Your task to perform on an android device: read, delete, or share a saved page in the chrome app Image 0: 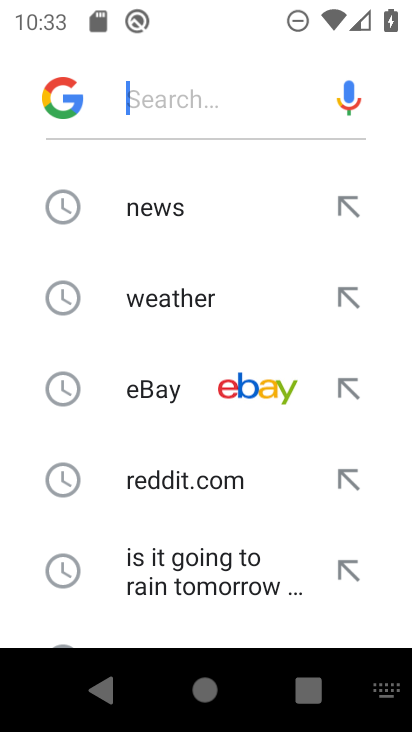
Step 0: press home button
Your task to perform on an android device: read, delete, or share a saved page in the chrome app Image 1: 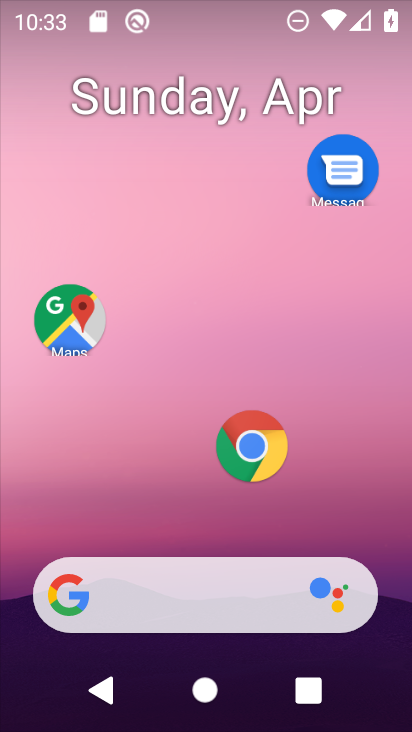
Step 1: drag from (168, 531) to (193, 125)
Your task to perform on an android device: read, delete, or share a saved page in the chrome app Image 2: 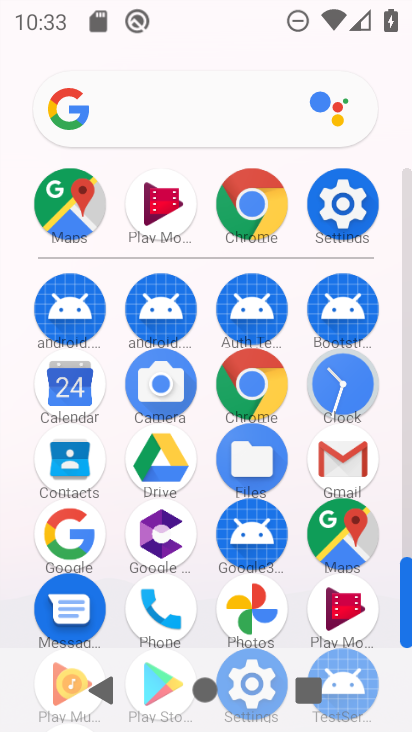
Step 2: click (246, 378)
Your task to perform on an android device: read, delete, or share a saved page in the chrome app Image 3: 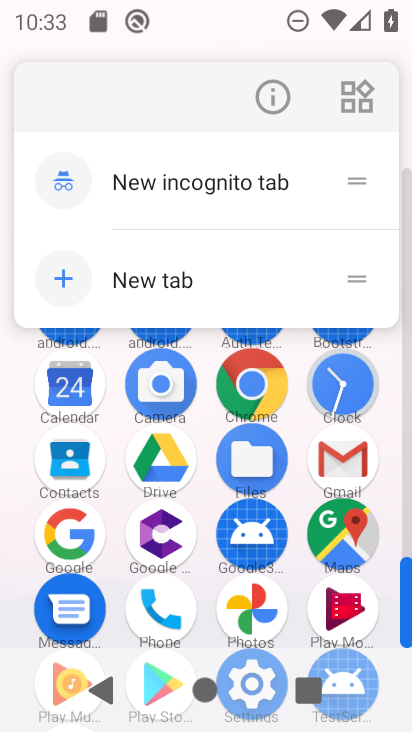
Step 3: click (254, 92)
Your task to perform on an android device: read, delete, or share a saved page in the chrome app Image 4: 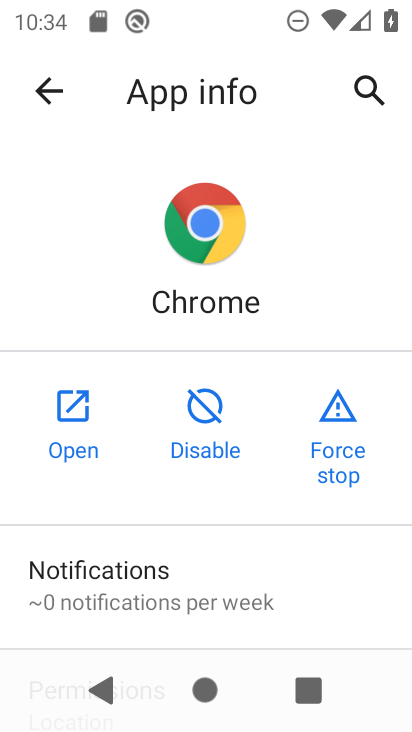
Step 4: click (82, 414)
Your task to perform on an android device: read, delete, or share a saved page in the chrome app Image 5: 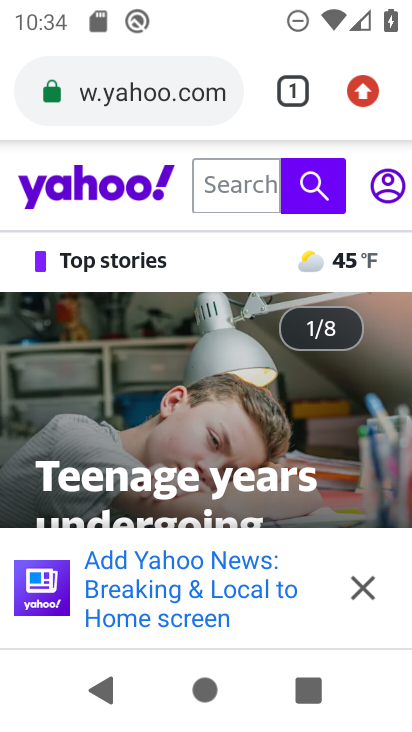
Step 5: drag from (344, 148) to (249, 265)
Your task to perform on an android device: read, delete, or share a saved page in the chrome app Image 6: 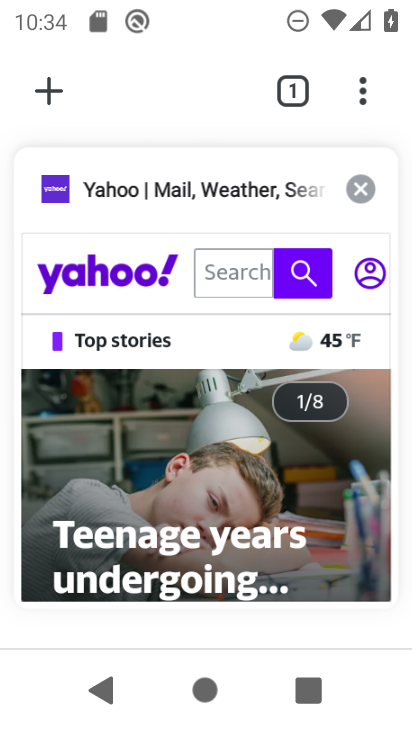
Step 6: click (252, 217)
Your task to perform on an android device: read, delete, or share a saved page in the chrome app Image 7: 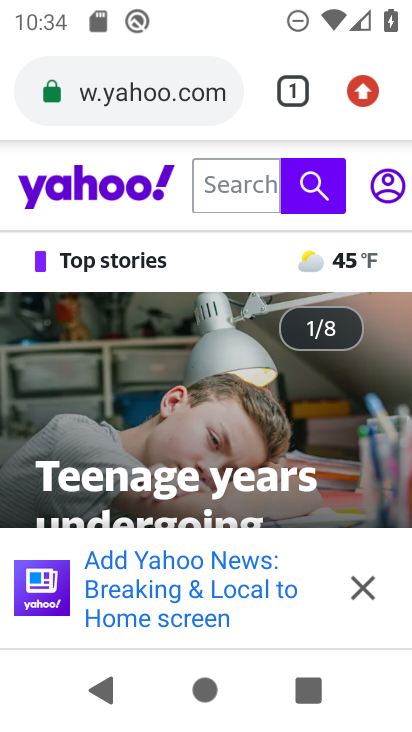
Step 7: drag from (367, 86) to (172, 440)
Your task to perform on an android device: read, delete, or share a saved page in the chrome app Image 8: 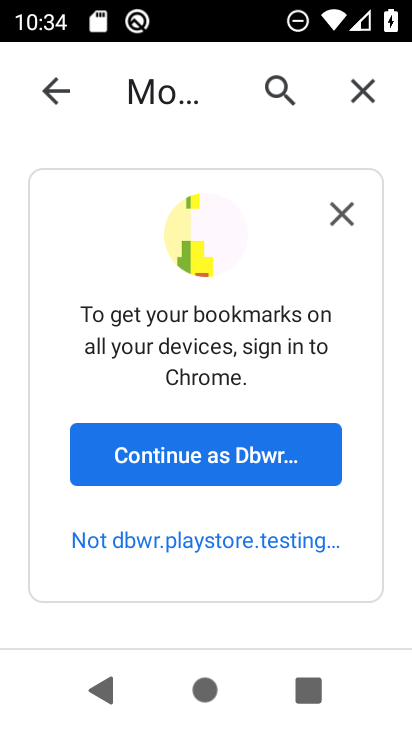
Step 8: click (352, 213)
Your task to perform on an android device: read, delete, or share a saved page in the chrome app Image 9: 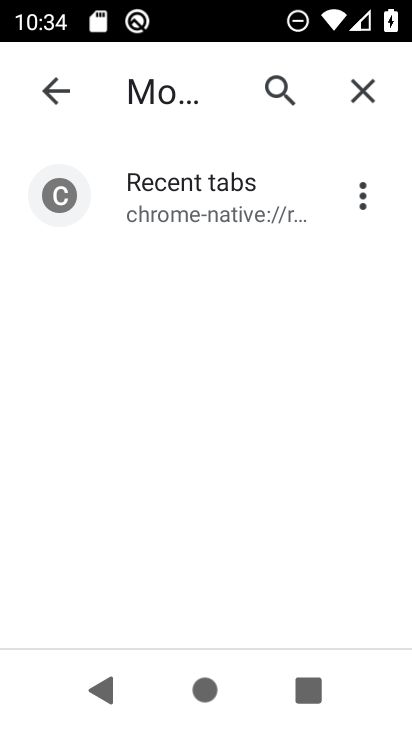
Step 9: click (235, 220)
Your task to perform on an android device: read, delete, or share a saved page in the chrome app Image 10: 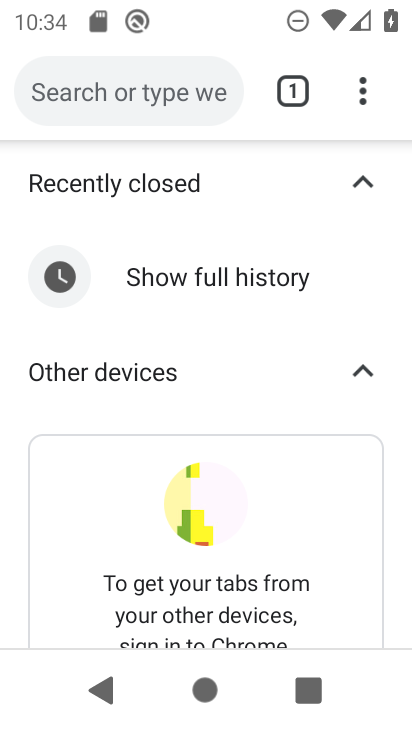
Step 10: task complete